Your task to perform on an android device: toggle location history Image 0: 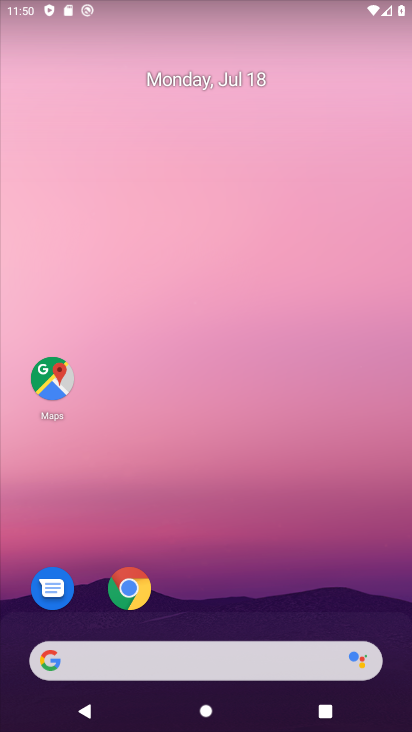
Step 0: drag from (232, 660) to (287, 211)
Your task to perform on an android device: toggle location history Image 1: 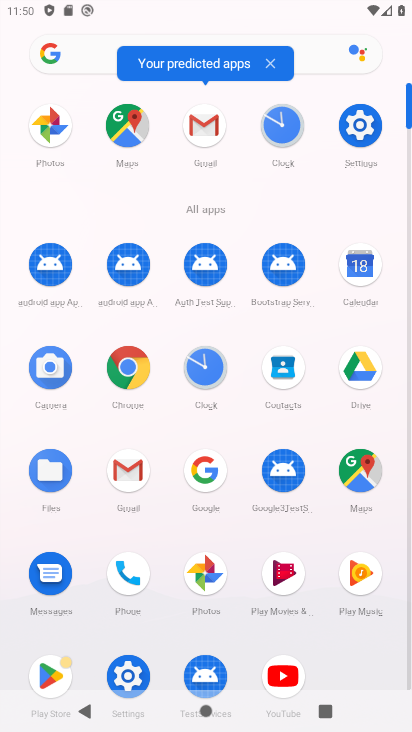
Step 1: click (137, 673)
Your task to perform on an android device: toggle location history Image 2: 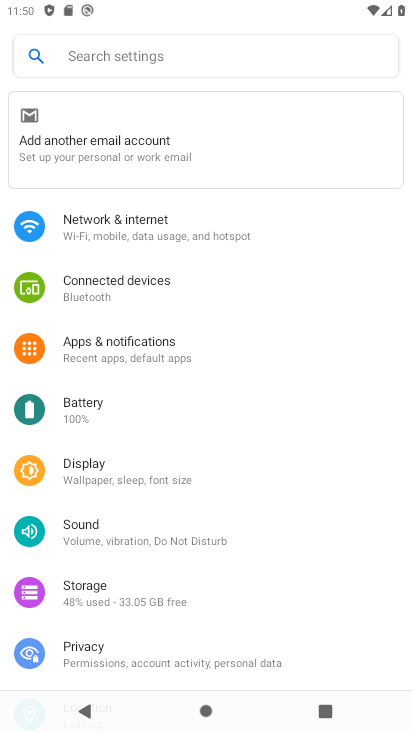
Step 2: drag from (104, 642) to (248, 367)
Your task to perform on an android device: toggle location history Image 3: 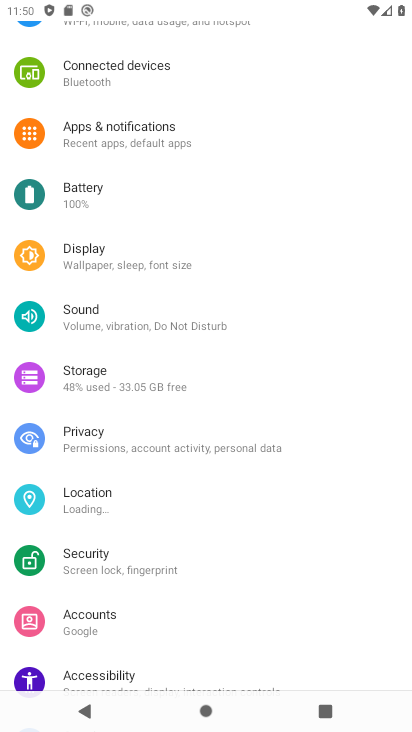
Step 3: click (144, 513)
Your task to perform on an android device: toggle location history Image 4: 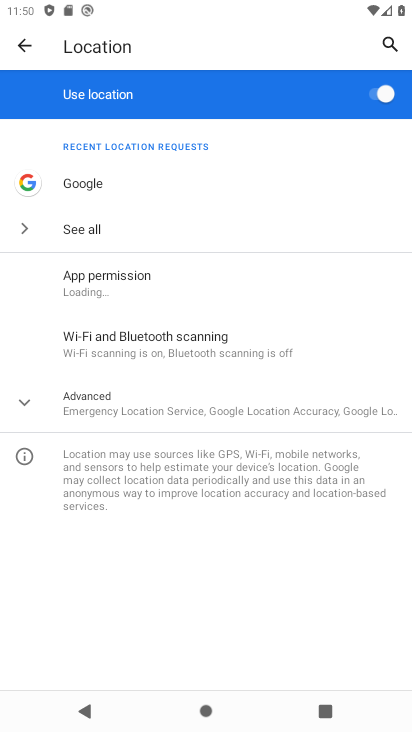
Step 4: drag from (153, 400) to (227, 416)
Your task to perform on an android device: toggle location history Image 5: 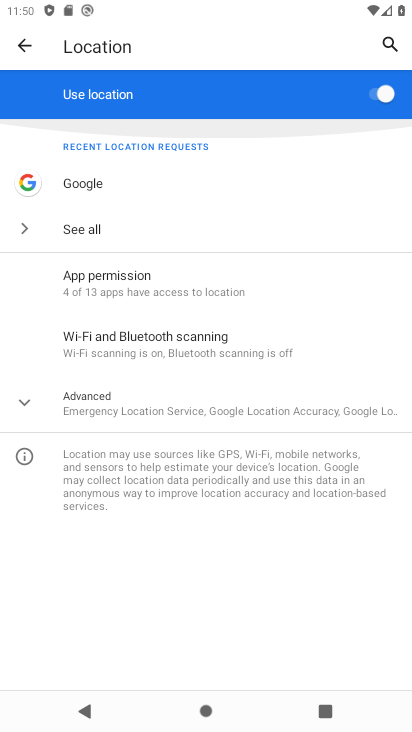
Step 5: click (227, 416)
Your task to perform on an android device: toggle location history Image 6: 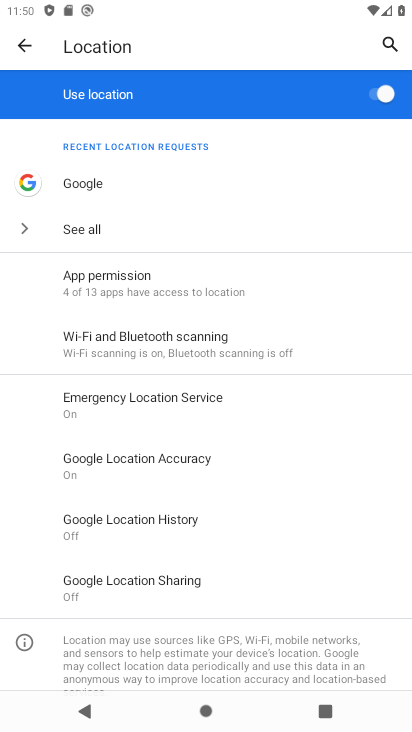
Step 6: click (171, 537)
Your task to perform on an android device: toggle location history Image 7: 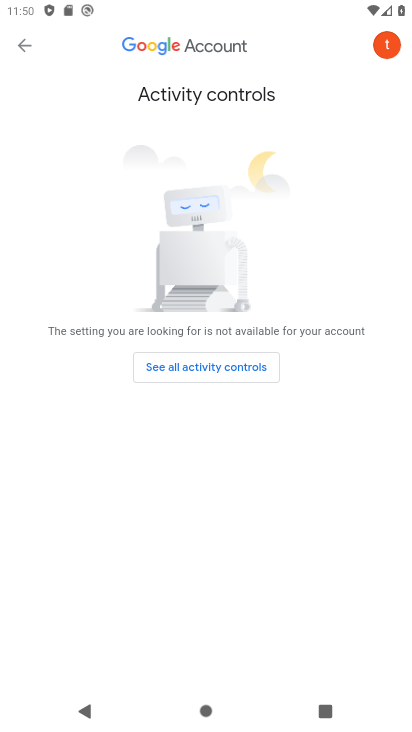
Step 7: task complete